Your task to perform on an android device: open app "Instagram" (install if not already installed) and enter user name: "nobler@yahoo.com" and password: "foraging" Image 0: 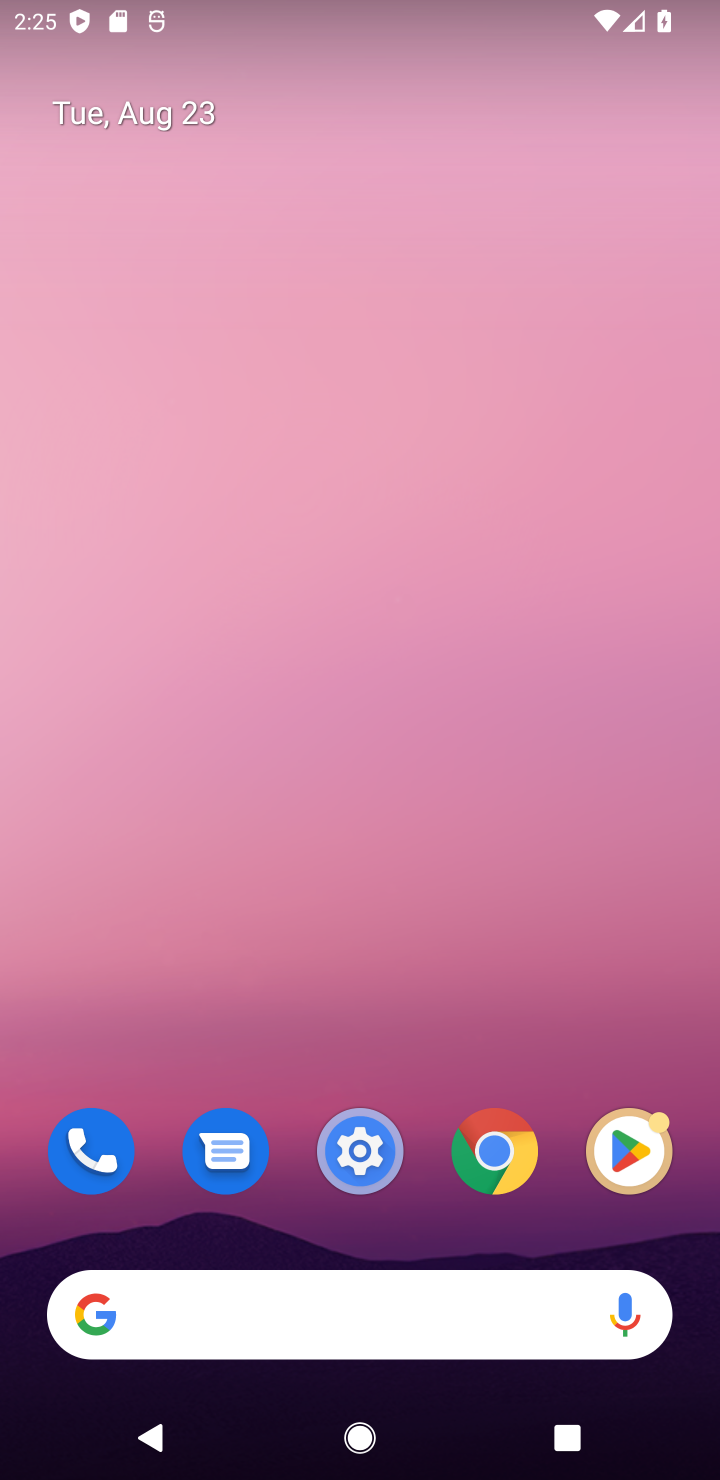
Step 0: click (626, 1146)
Your task to perform on an android device: open app "Instagram" (install if not already installed) and enter user name: "nobler@yahoo.com" and password: "foraging" Image 1: 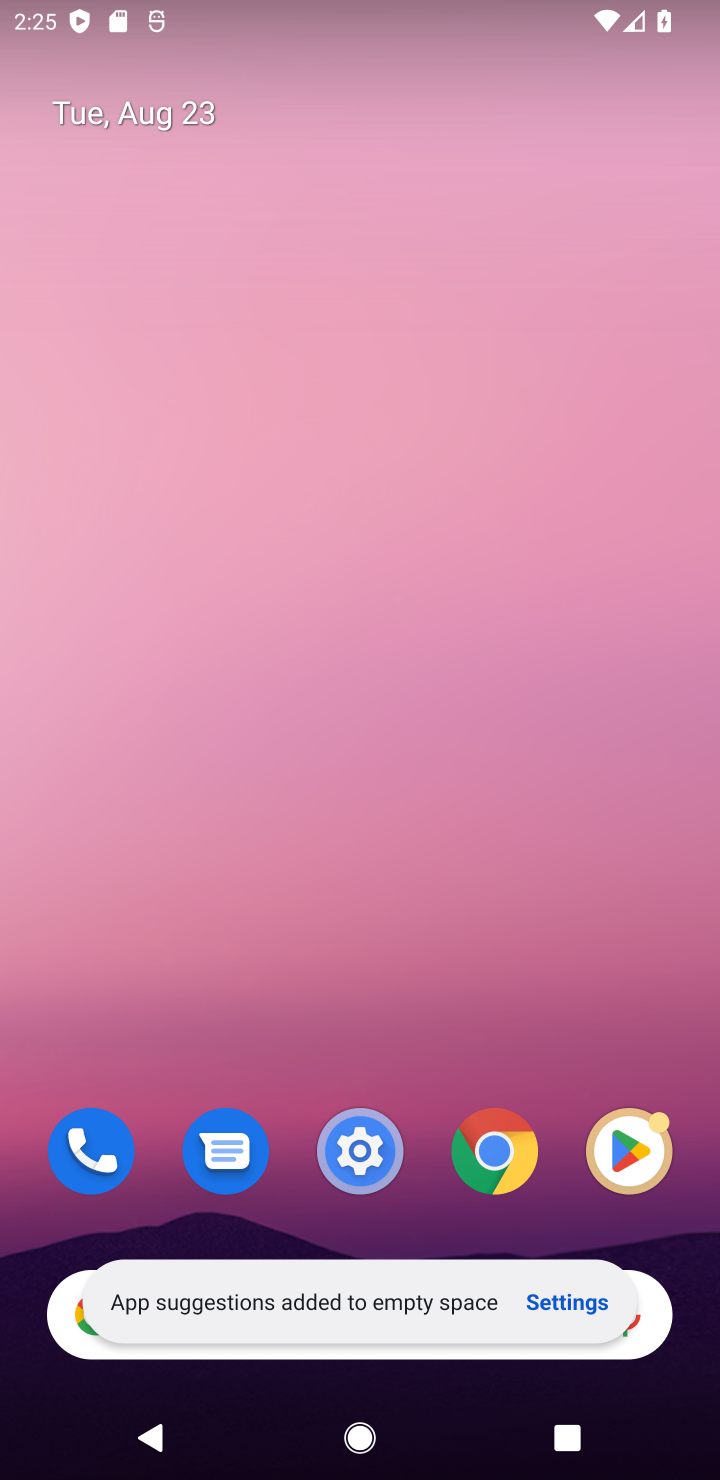
Step 1: click (628, 1160)
Your task to perform on an android device: open app "Instagram" (install if not already installed) and enter user name: "nobler@yahoo.com" and password: "foraging" Image 2: 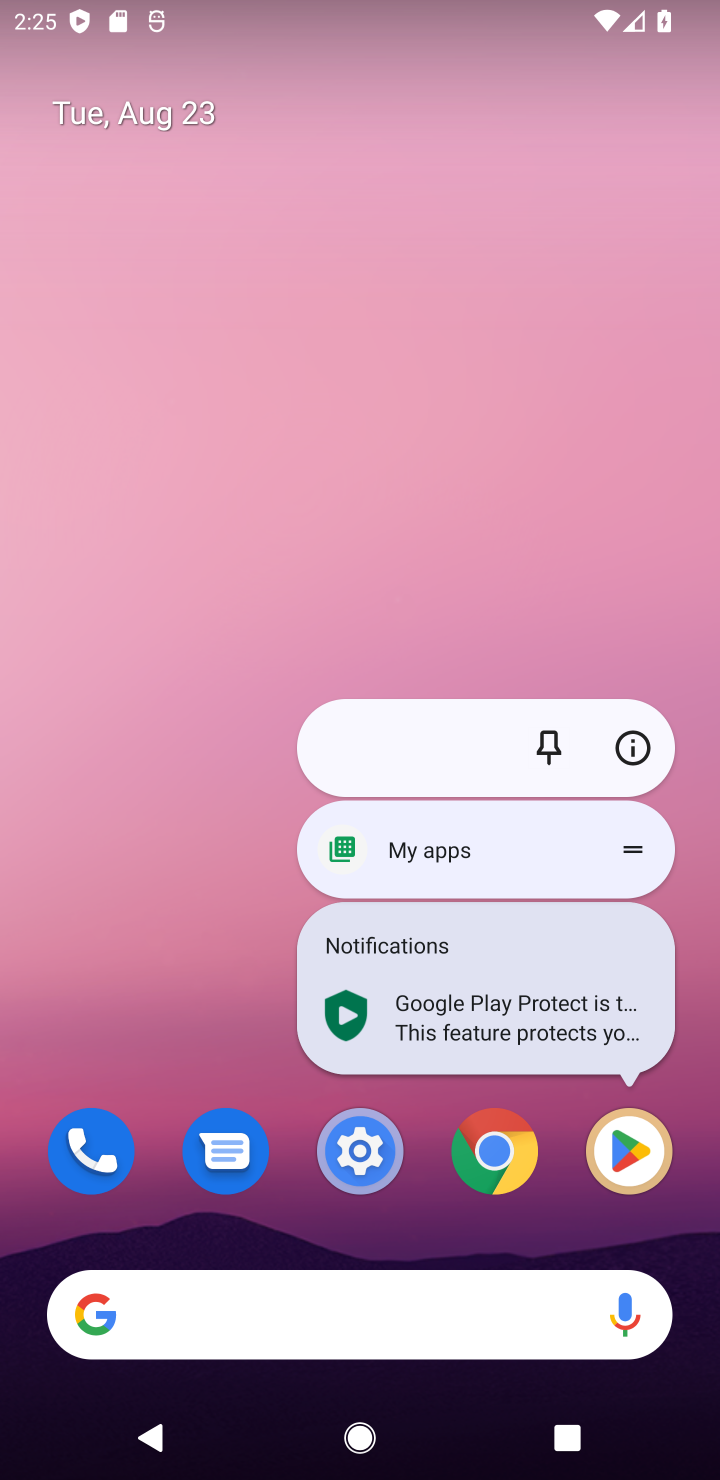
Step 2: click (628, 1150)
Your task to perform on an android device: open app "Instagram" (install if not already installed) and enter user name: "nobler@yahoo.com" and password: "foraging" Image 3: 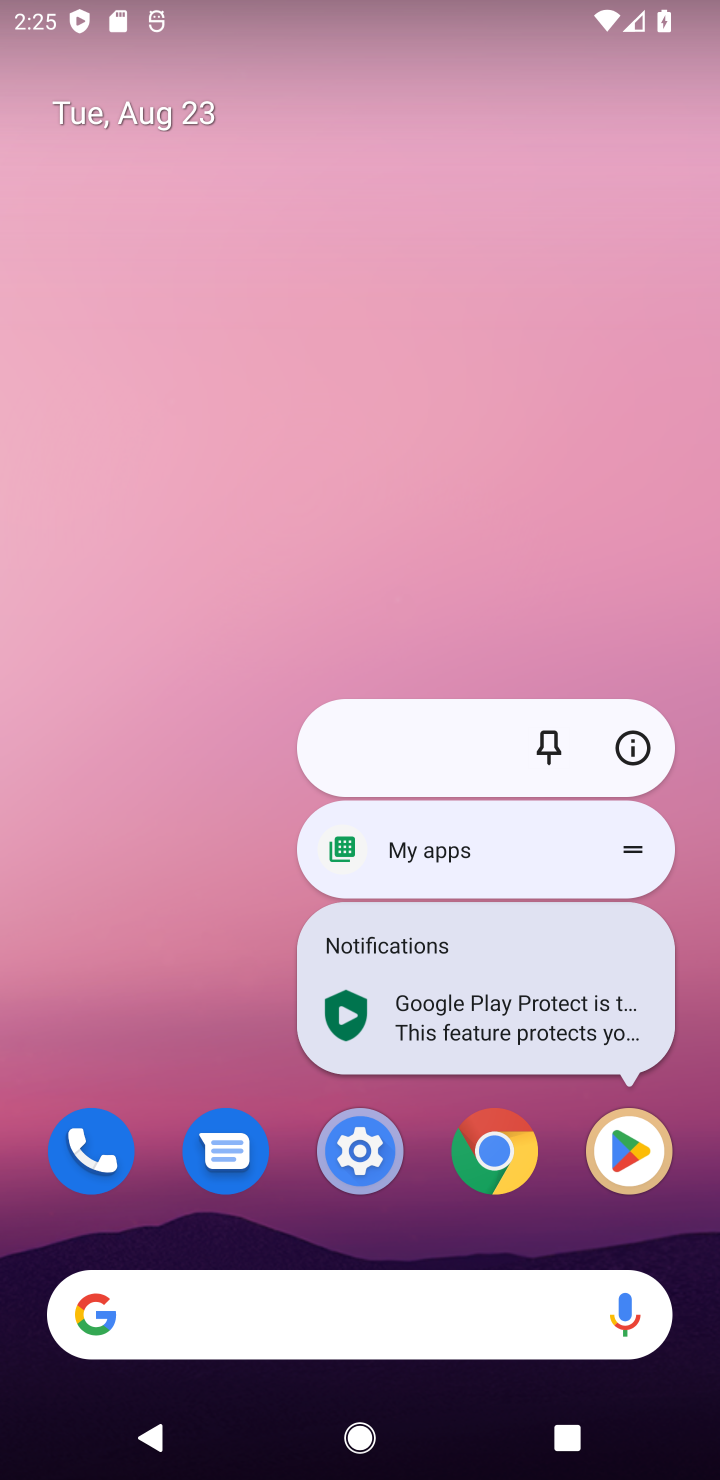
Step 3: click (635, 1167)
Your task to perform on an android device: open app "Instagram" (install if not already installed) and enter user name: "nobler@yahoo.com" and password: "foraging" Image 4: 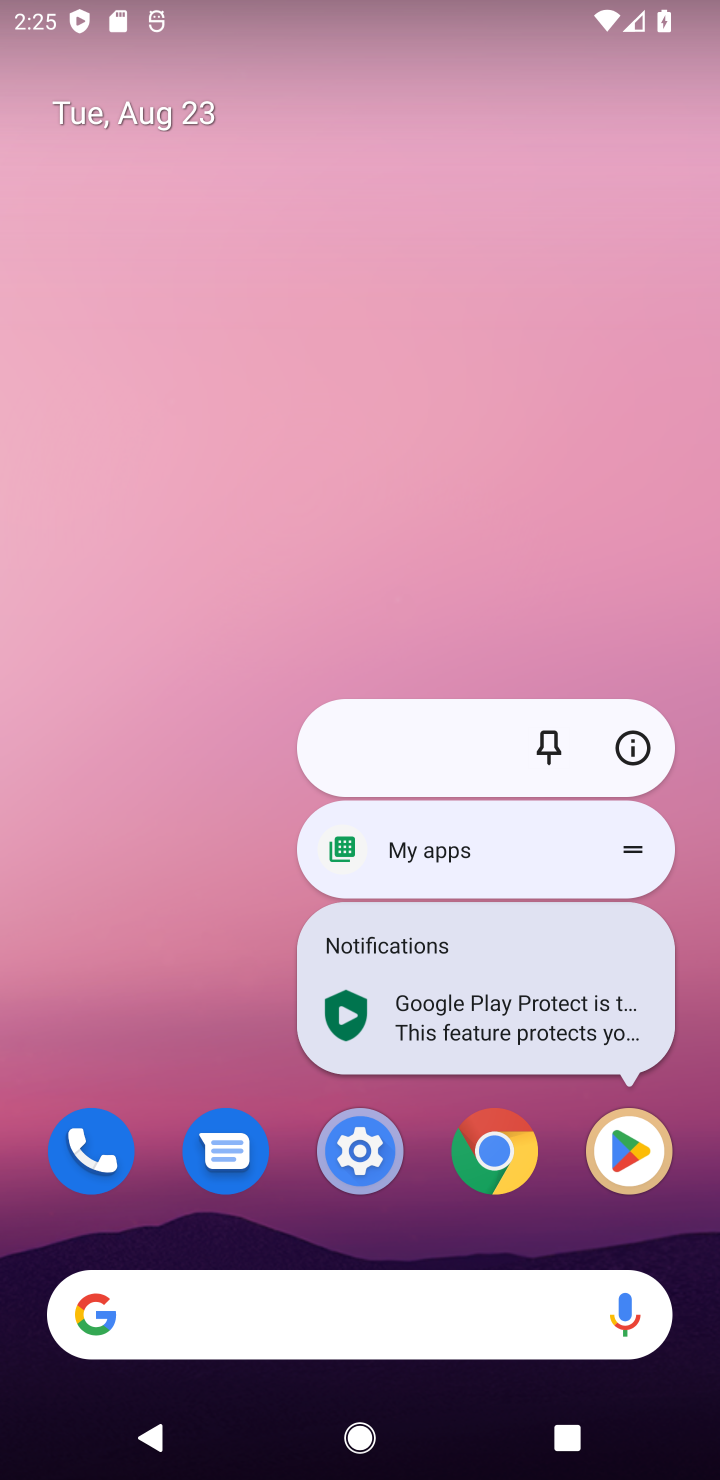
Step 4: click (643, 1142)
Your task to perform on an android device: open app "Instagram" (install if not already installed) and enter user name: "nobler@yahoo.com" and password: "foraging" Image 5: 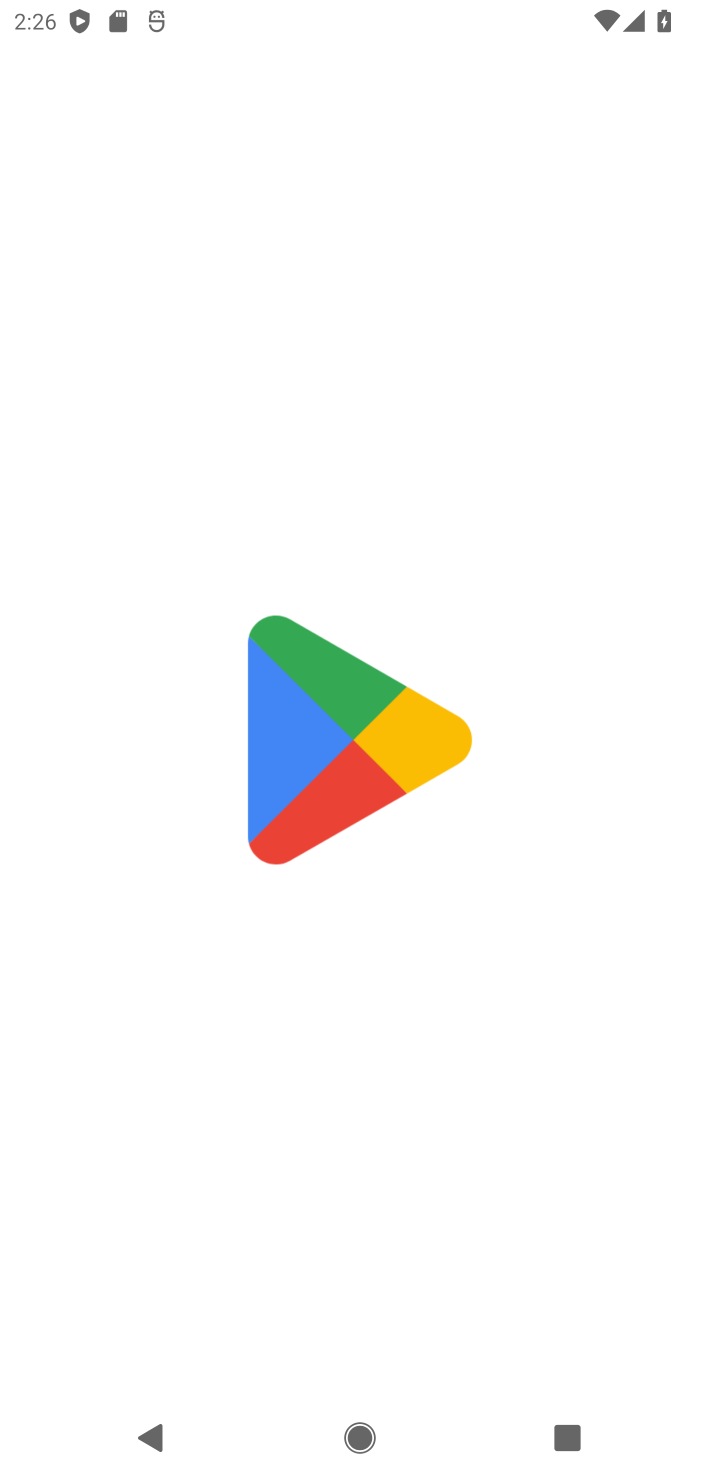
Step 5: drag from (230, 976) to (391, 962)
Your task to perform on an android device: open app "Instagram" (install if not already installed) and enter user name: "nobler@yahoo.com" and password: "foraging" Image 6: 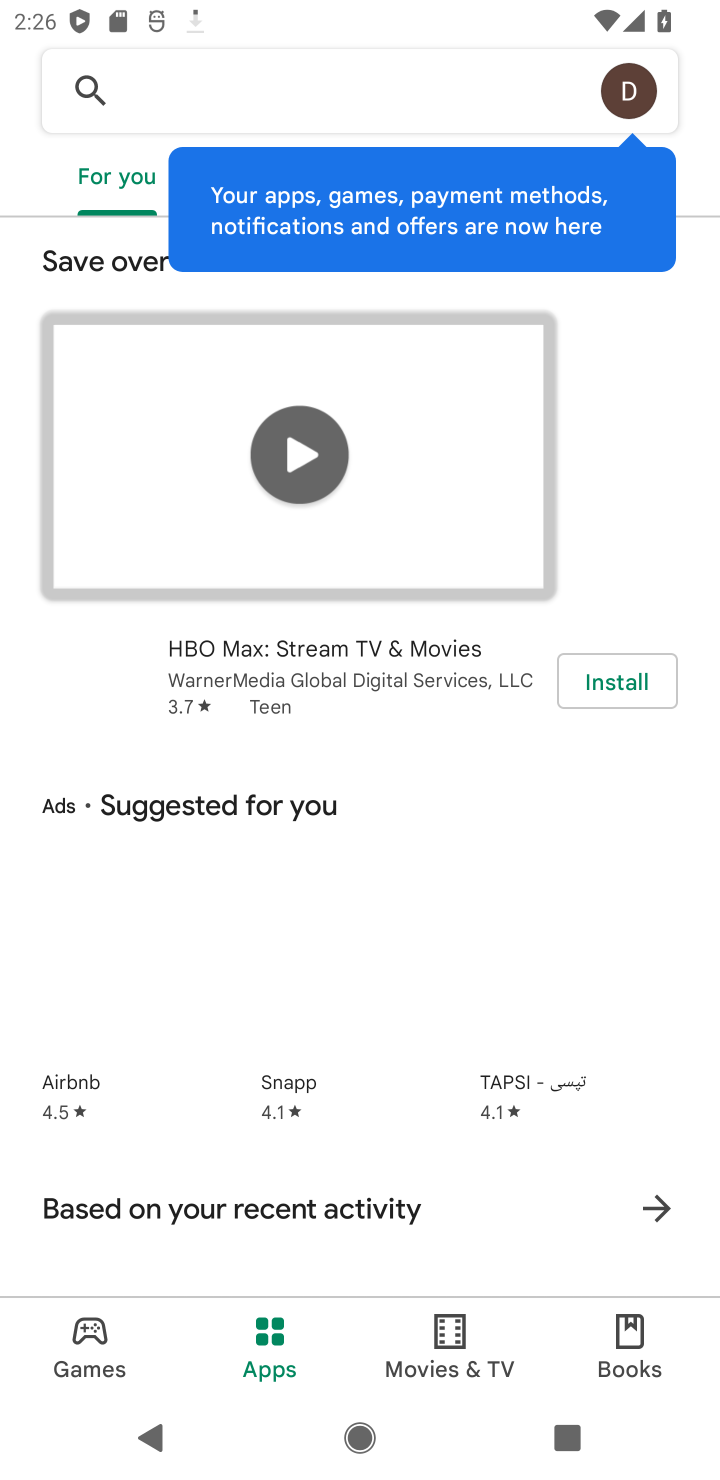
Step 6: click (394, 84)
Your task to perform on an android device: open app "Instagram" (install if not already installed) and enter user name: "nobler@yahoo.com" and password: "foraging" Image 7: 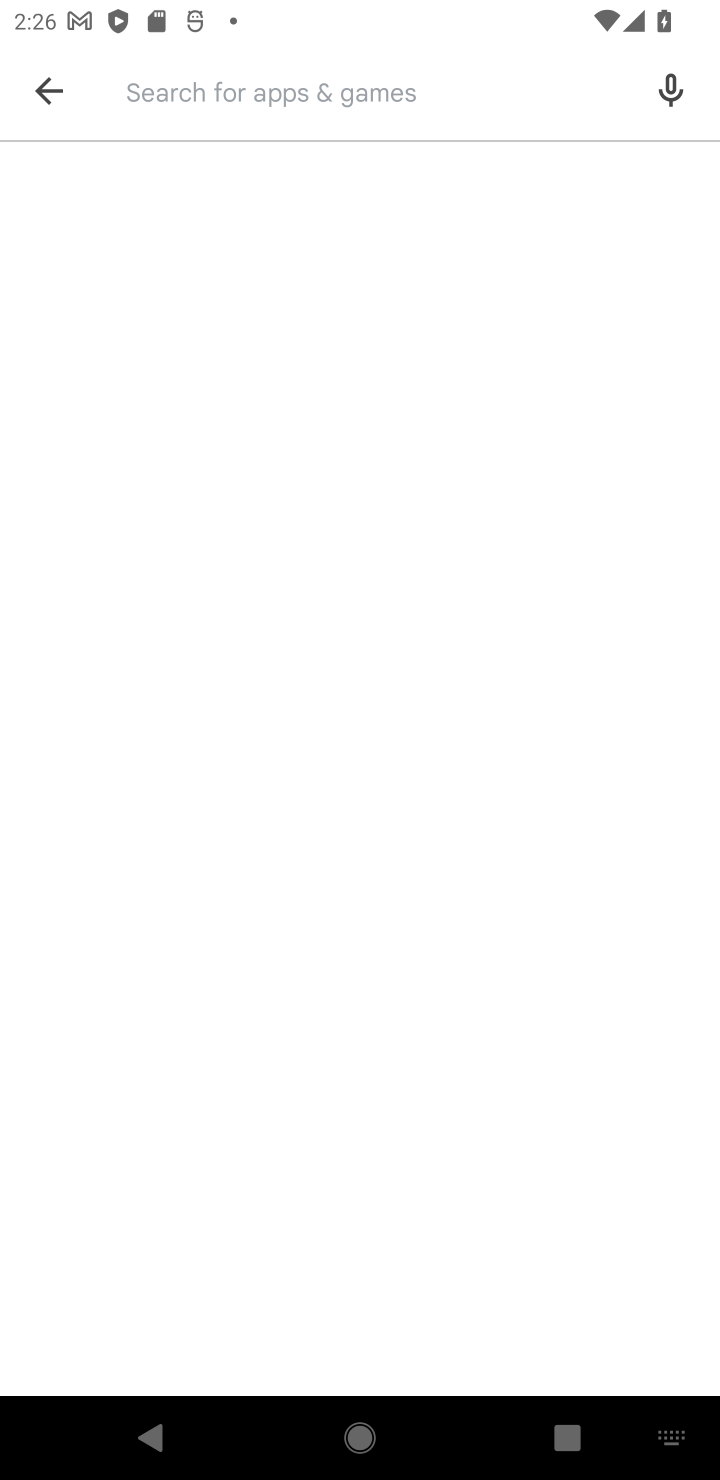
Step 7: type "Instagram"
Your task to perform on an android device: open app "Instagram" (install if not already installed) and enter user name: "nobler@yahoo.com" and password: "foraging" Image 8: 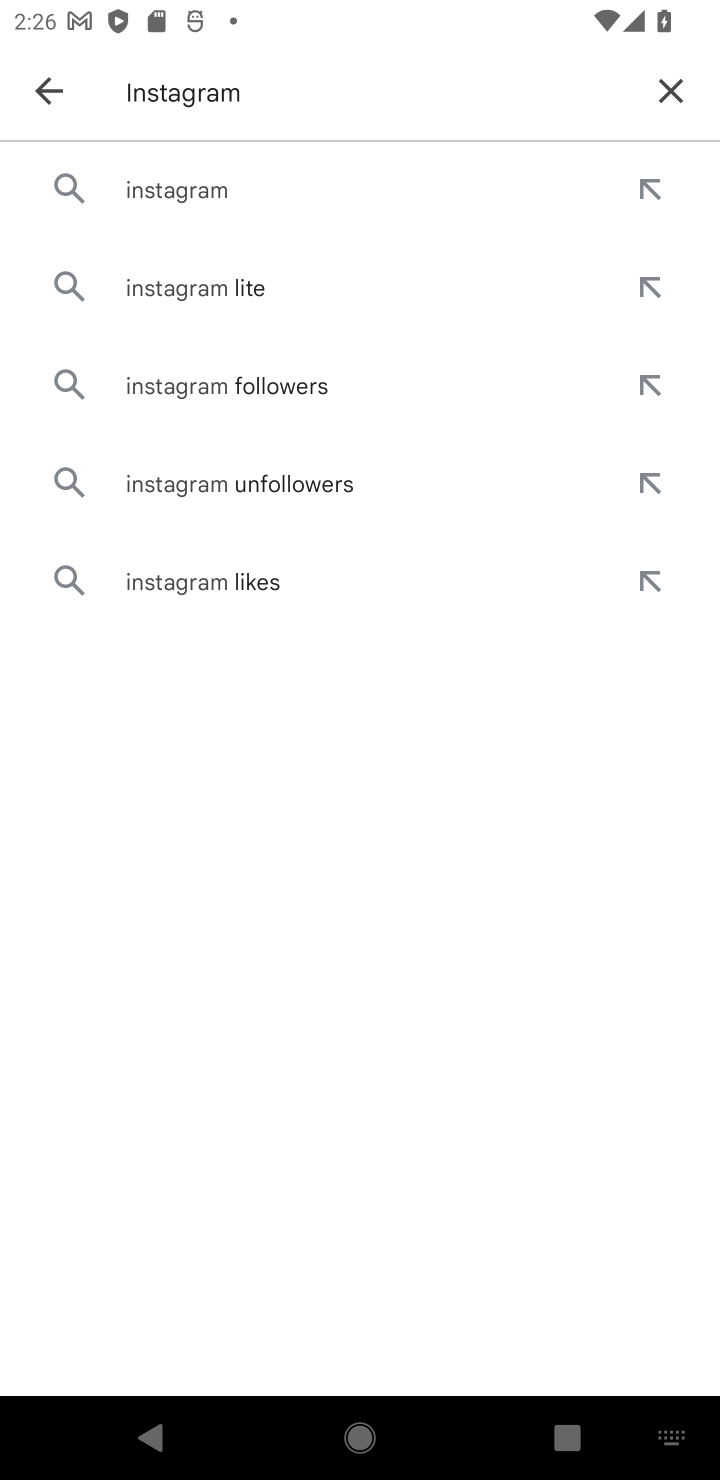
Step 8: click (205, 193)
Your task to perform on an android device: open app "Instagram" (install if not already installed) and enter user name: "nobler@yahoo.com" and password: "foraging" Image 9: 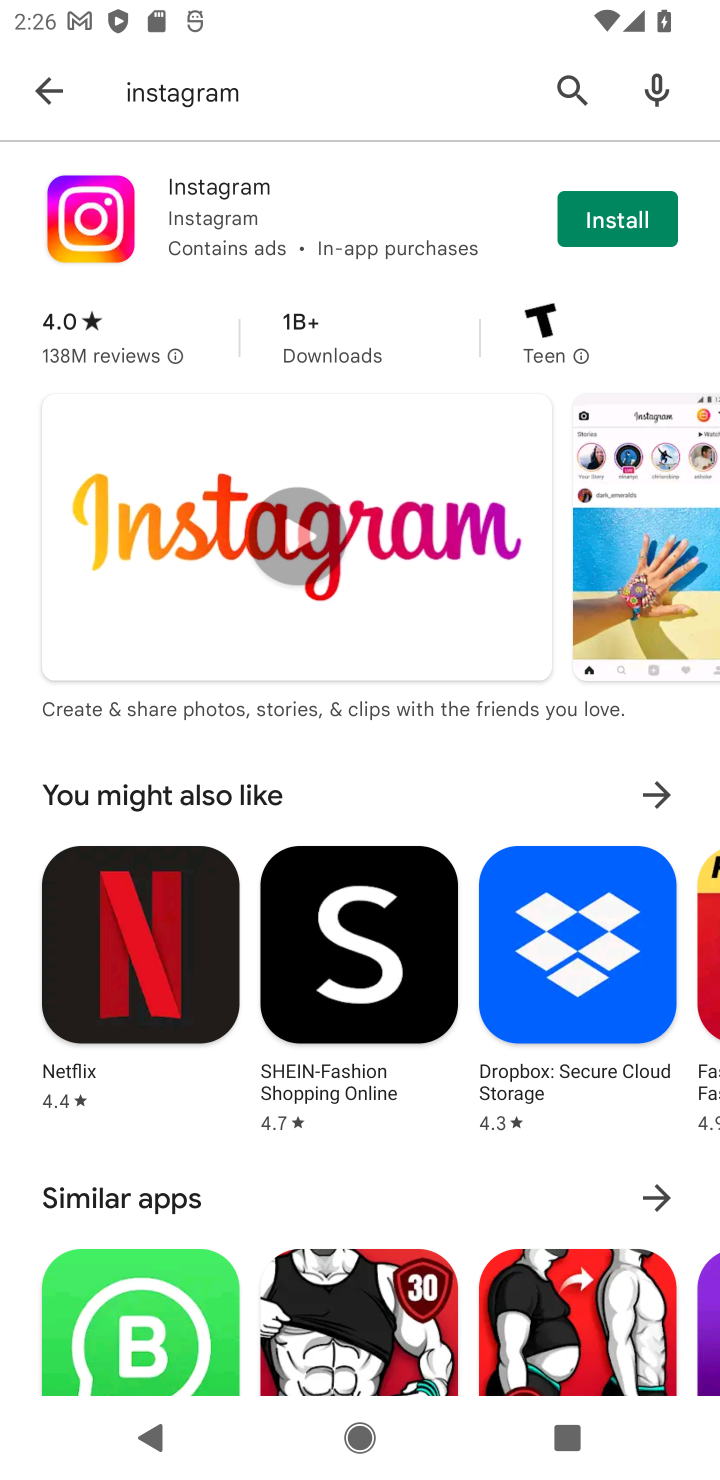
Step 9: click (641, 228)
Your task to perform on an android device: open app "Instagram" (install if not already installed) and enter user name: "nobler@yahoo.com" and password: "foraging" Image 10: 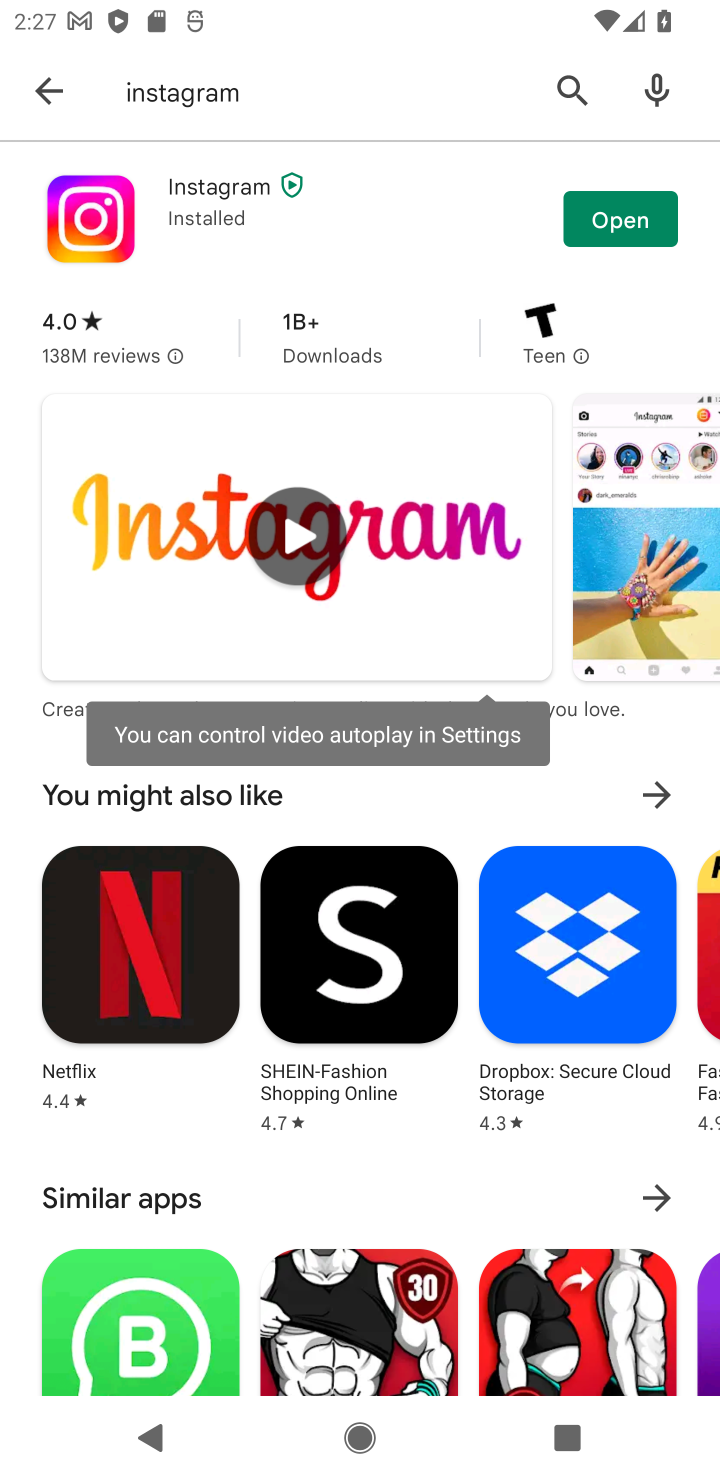
Step 10: click (635, 220)
Your task to perform on an android device: open app "Instagram" (install if not already installed) and enter user name: "nobler@yahoo.com" and password: "foraging" Image 11: 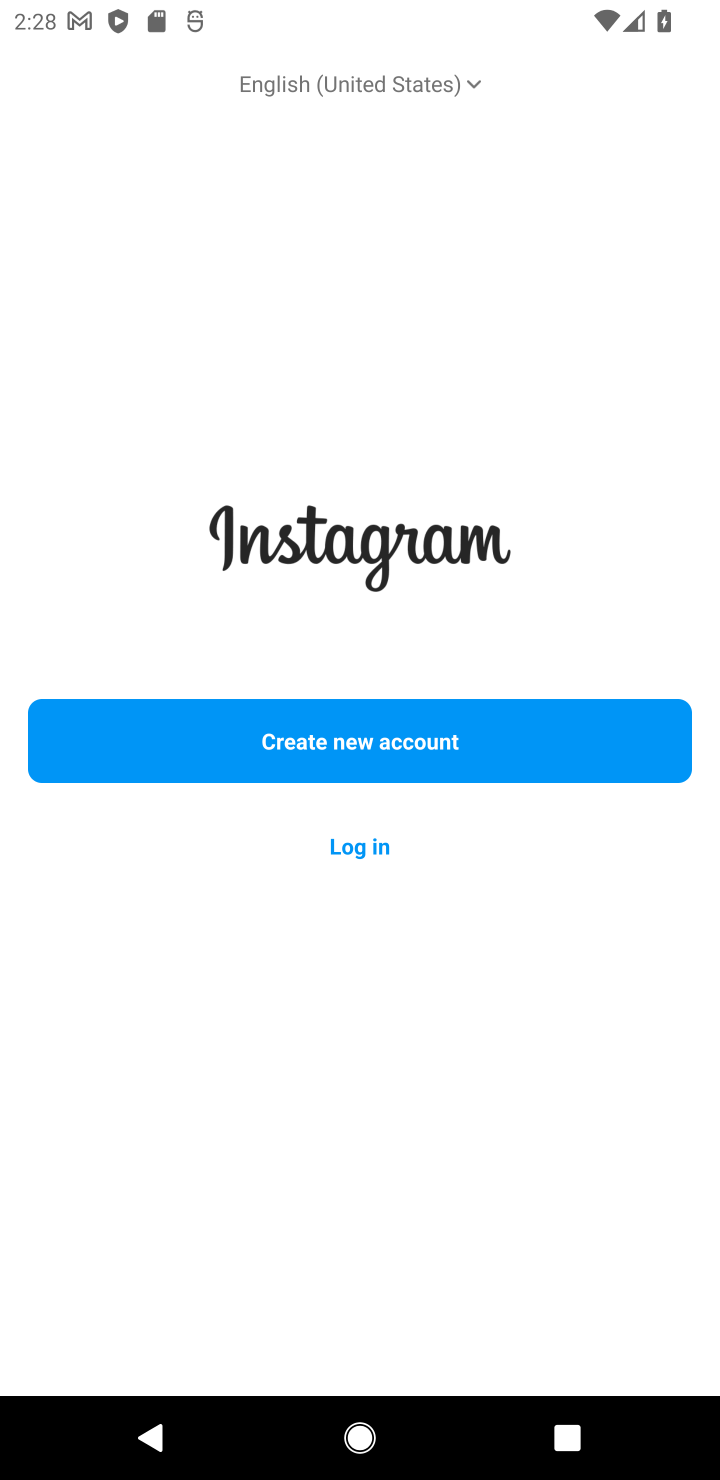
Step 11: click (365, 849)
Your task to perform on an android device: open app "Instagram" (install if not already installed) and enter user name: "nobler@yahoo.com" and password: "foraging" Image 12: 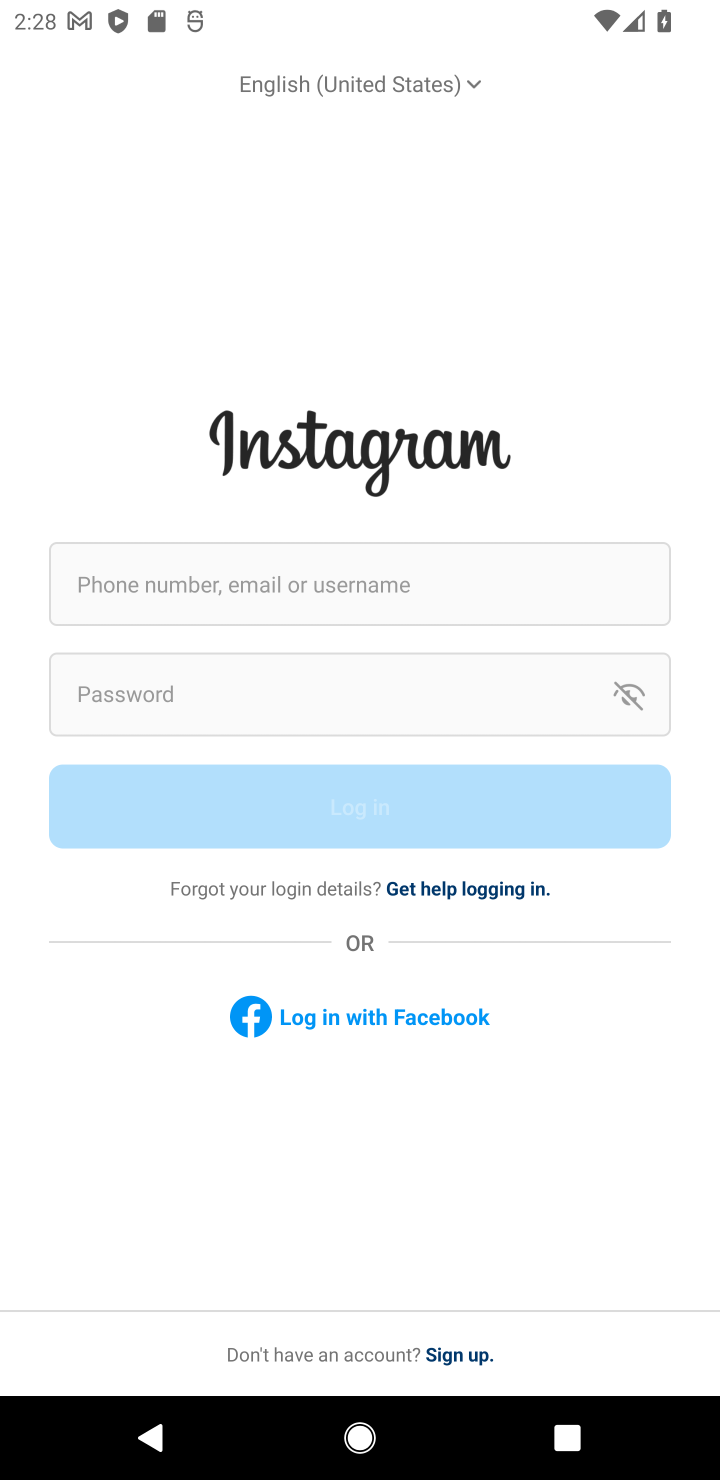
Step 12: click (177, 580)
Your task to perform on an android device: open app "Instagram" (install if not already installed) and enter user name: "nobler@yahoo.com" and password: "foraging" Image 13: 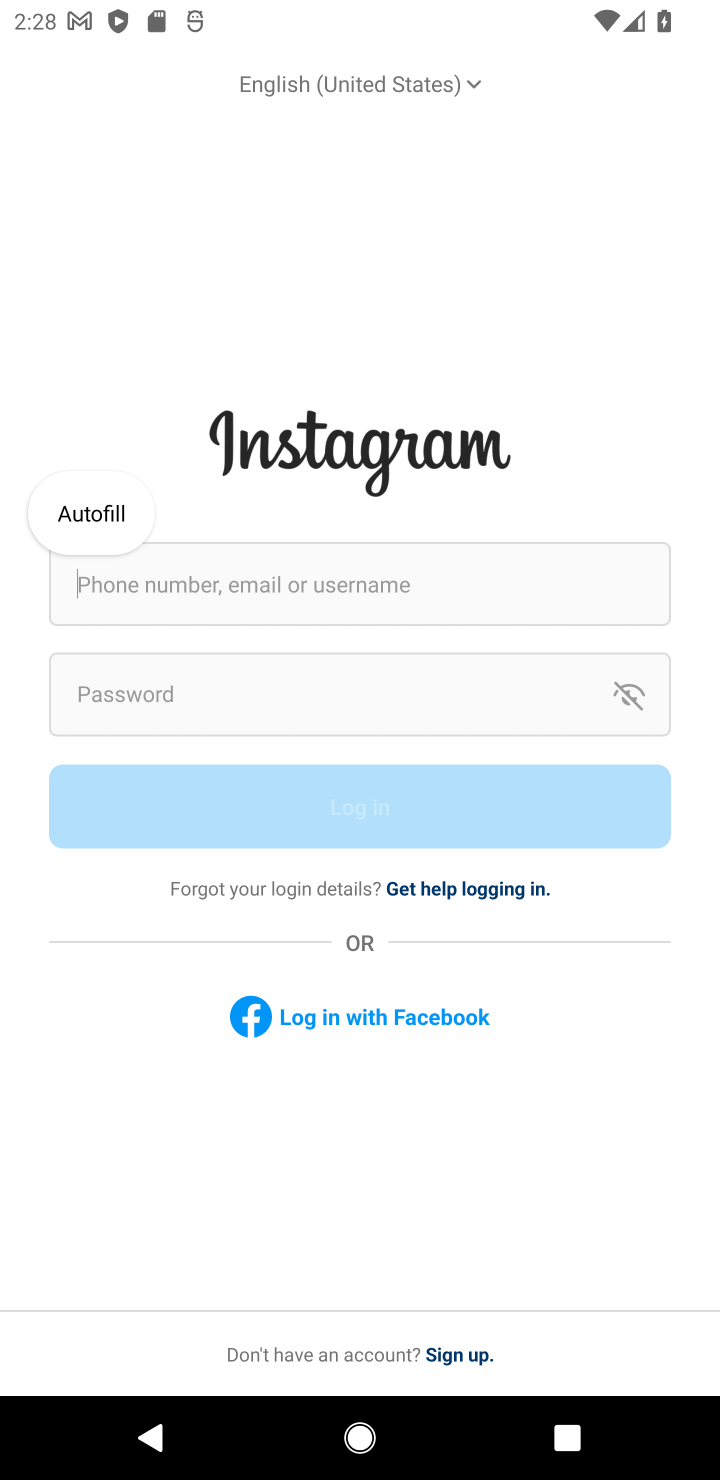
Step 13: type "nobler@yahoo.com"
Your task to perform on an android device: open app "Instagram" (install if not already installed) and enter user name: "nobler@yahoo.com" and password: "foraging" Image 14: 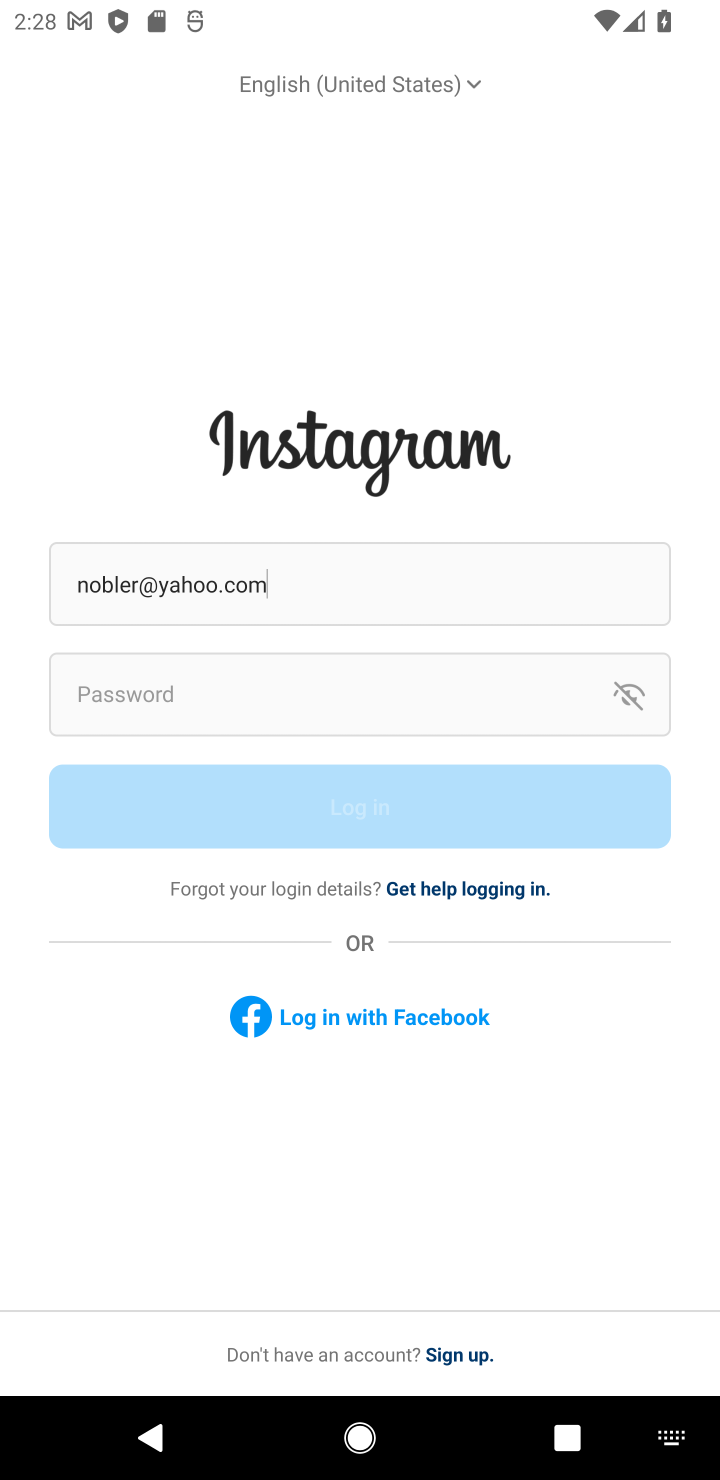
Step 14: click (230, 686)
Your task to perform on an android device: open app "Instagram" (install if not already installed) and enter user name: "nobler@yahoo.com" and password: "foraging" Image 15: 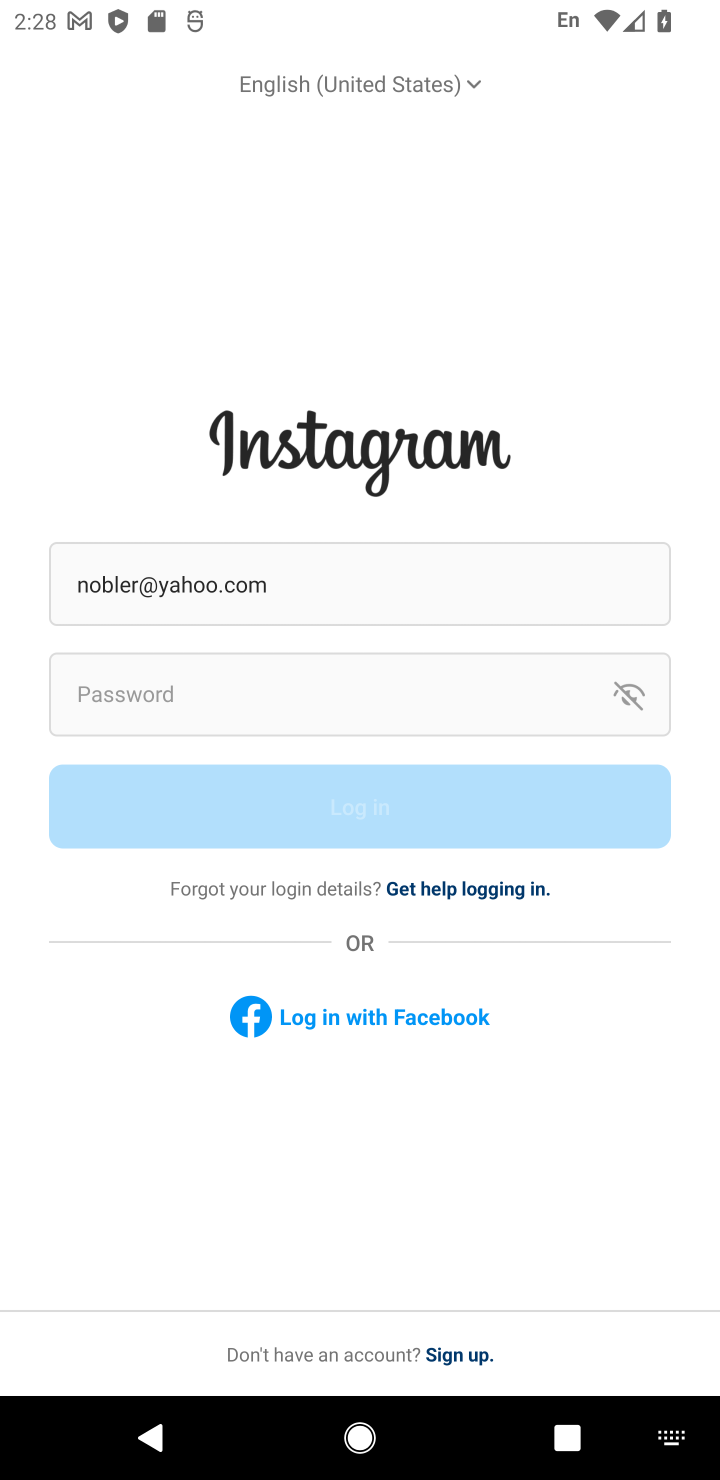
Step 15: type "foraging"
Your task to perform on an android device: open app "Instagram" (install if not already installed) and enter user name: "nobler@yahoo.com" and password: "foraging" Image 16: 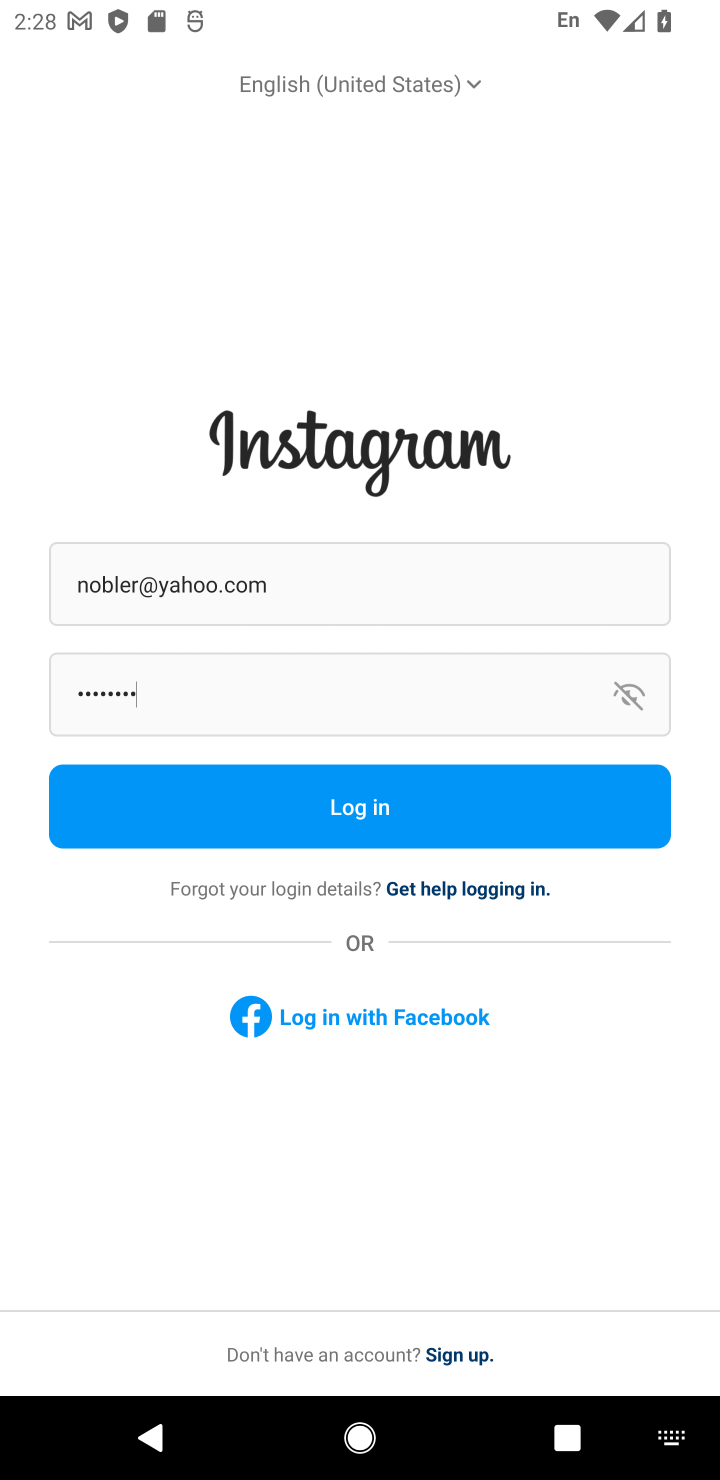
Step 16: task complete